Your task to perform on an android device: turn off picture-in-picture Image 0: 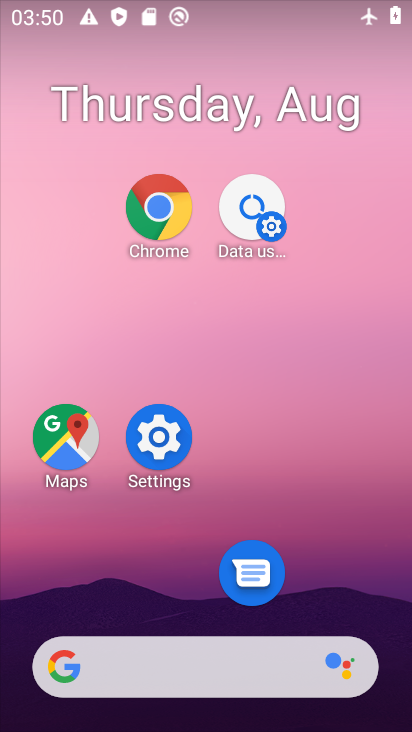
Step 0: drag from (226, 88) to (180, 92)
Your task to perform on an android device: turn off picture-in-picture Image 1: 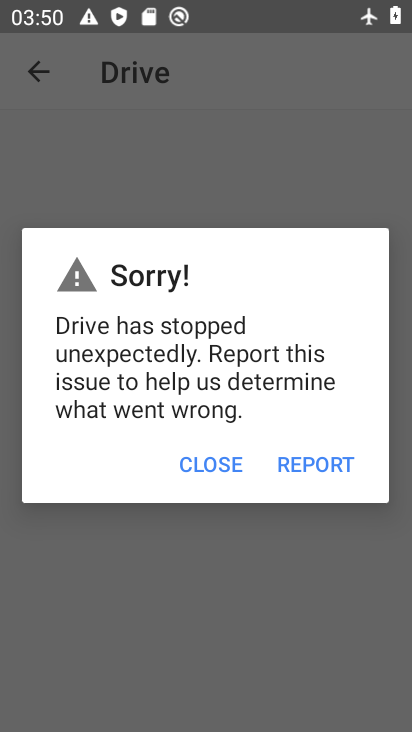
Step 1: drag from (82, 437) to (42, 56)
Your task to perform on an android device: turn off picture-in-picture Image 2: 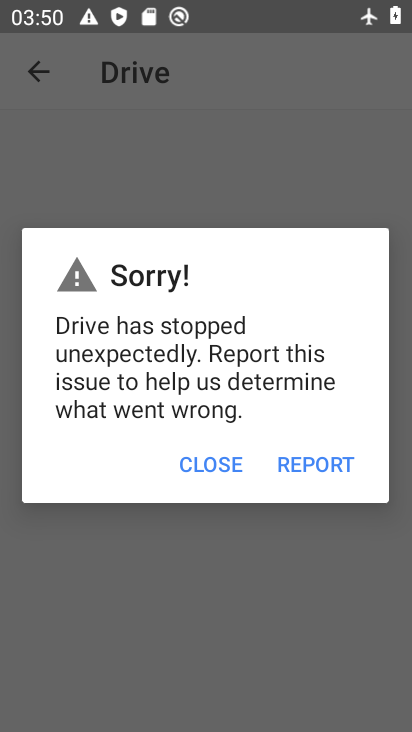
Step 2: click (212, 451)
Your task to perform on an android device: turn off picture-in-picture Image 3: 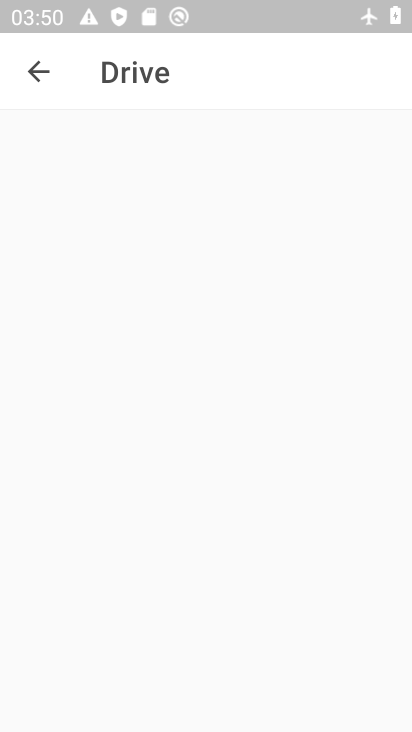
Step 3: click (210, 455)
Your task to perform on an android device: turn off picture-in-picture Image 4: 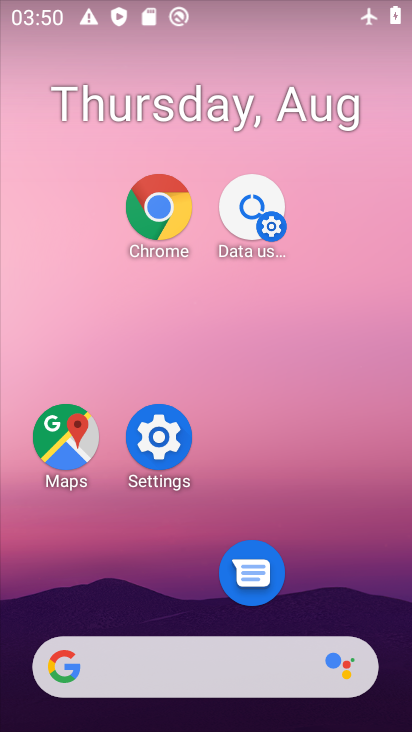
Step 4: drag from (241, 506) to (227, 65)
Your task to perform on an android device: turn off picture-in-picture Image 5: 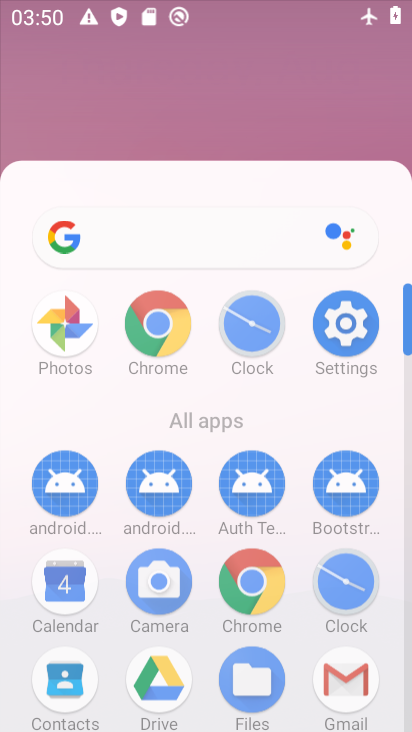
Step 5: drag from (237, 488) to (206, 159)
Your task to perform on an android device: turn off picture-in-picture Image 6: 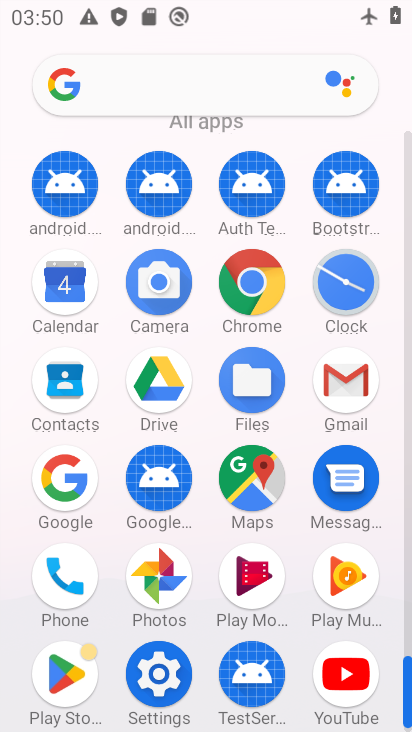
Step 6: click (249, 278)
Your task to perform on an android device: turn off picture-in-picture Image 7: 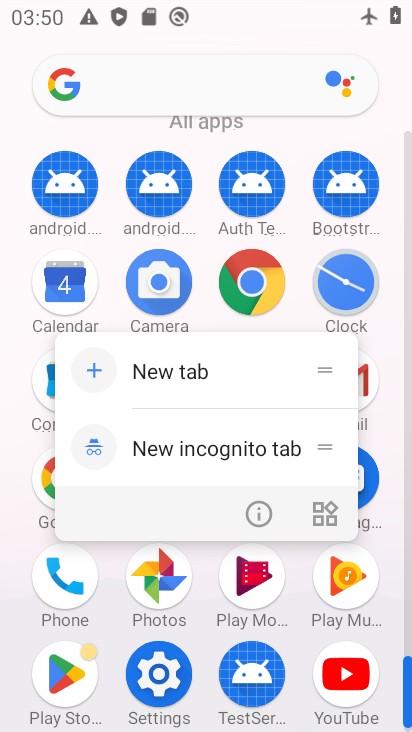
Step 7: click (269, 507)
Your task to perform on an android device: turn off picture-in-picture Image 8: 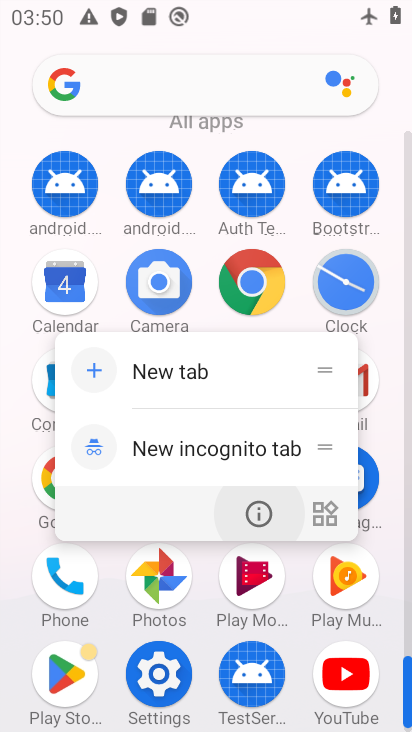
Step 8: click (267, 507)
Your task to perform on an android device: turn off picture-in-picture Image 9: 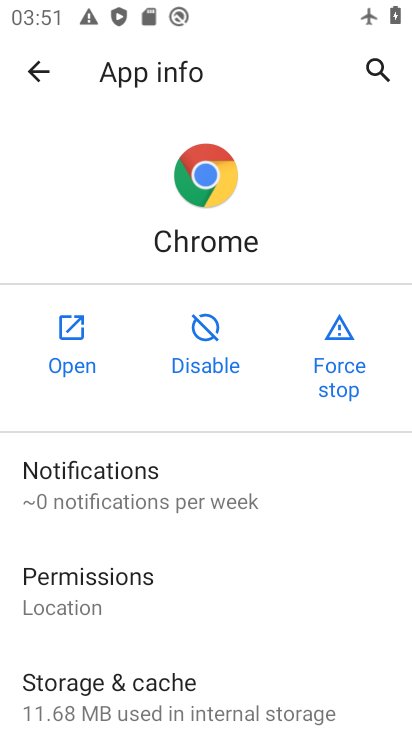
Step 9: drag from (173, 595) to (162, 281)
Your task to perform on an android device: turn off picture-in-picture Image 10: 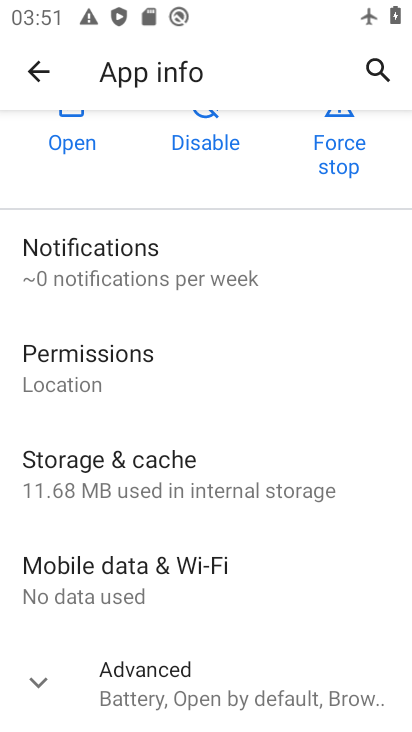
Step 10: drag from (147, 605) to (117, 223)
Your task to perform on an android device: turn off picture-in-picture Image 11: 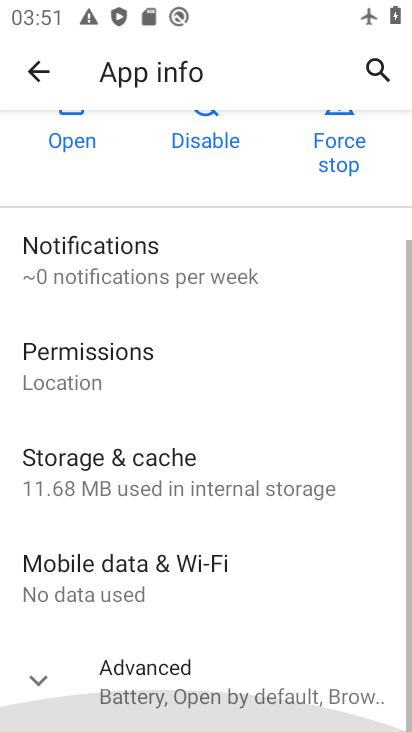
Step 11: drag from (238, 531) to (175, 276)
Your task to perform on an android device: turn off picture-in-picture Image 12: 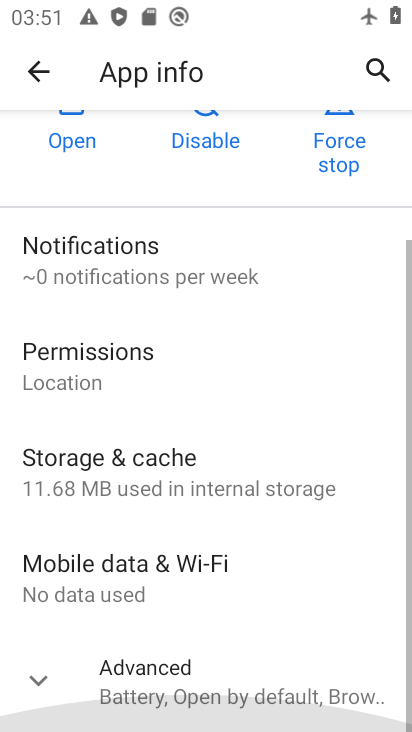
Step 12: drag from (219, 540) to (189, 267)
Your task to perform on an android device: turn off picture-in-picture Image 13: 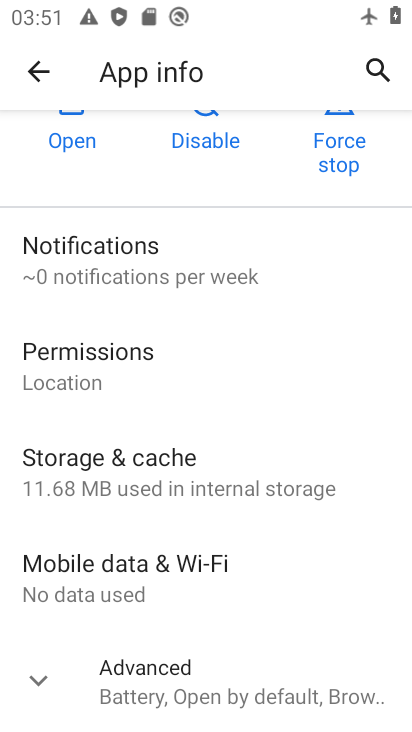
Step 13: click (160, 692)
Your task to perform on an android device: turn off picture-in-picture Image 14: 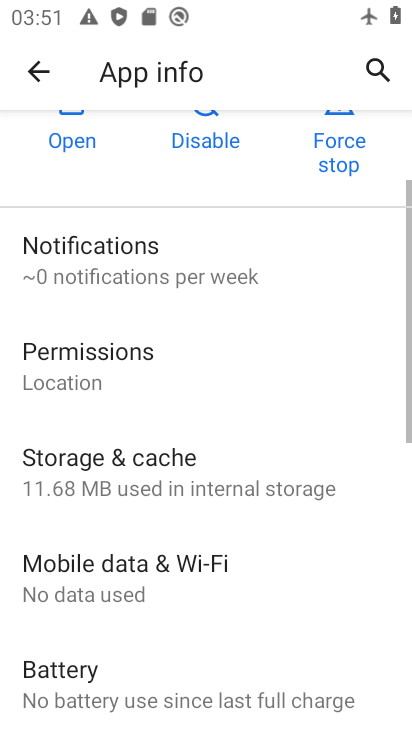
Step 14: drag from (203, 637) to (163, 325)
Your task to perform on an android device: turn off picture-in-picture Image 15: 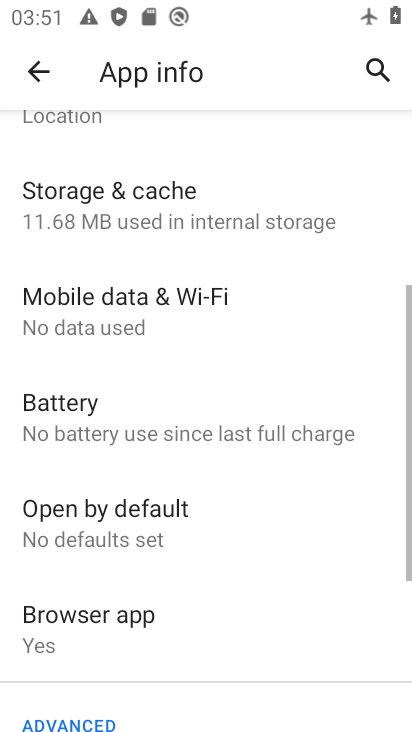
Step 15: drag from (144, 547) to (144, 255)
Your task to perform on an android device: turn off picture-in-picture Image 16: 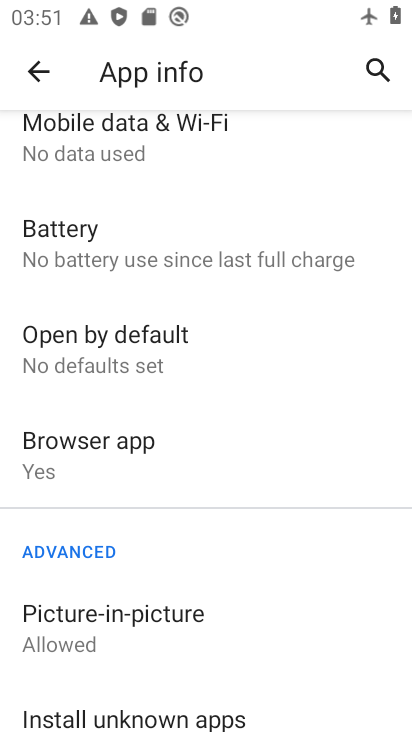
Step 16: click (93, 610)
Your task to perform on an android device: turn off picture-in-picture Image 17: 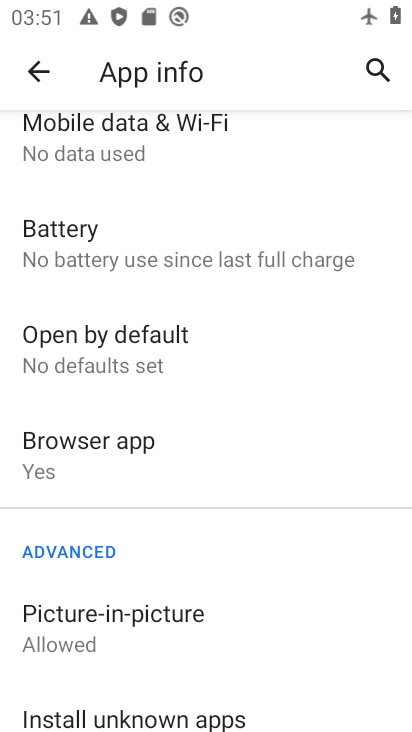
Step 17: click (92, 611)
Your task to perform on an android device: turn off picture-in-picture Image 18: 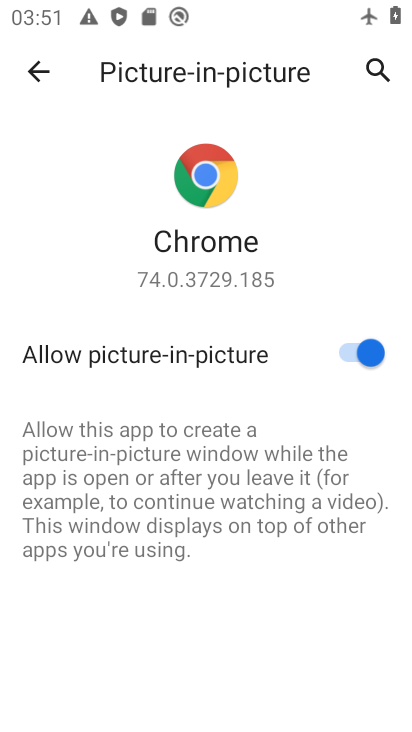
Step 18: click (367, 364)
Your task to perform on an android device: turn off picture-in-picture Image 19: 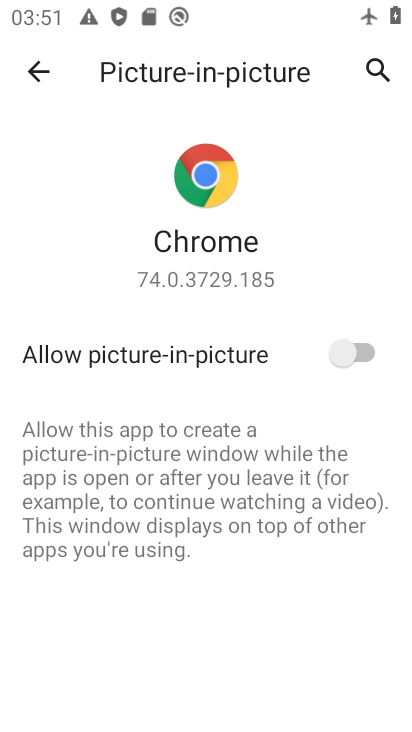
Step 19: task complete